Your task to perform on an android device: Show me recent news Image 0: 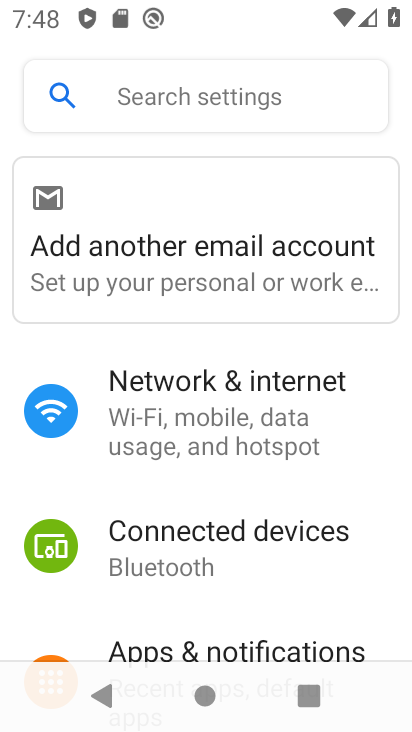
Step 0: drag from (252, 557) to (265, 264)
Your task to perform on an android device: Show me recent news Image 1: 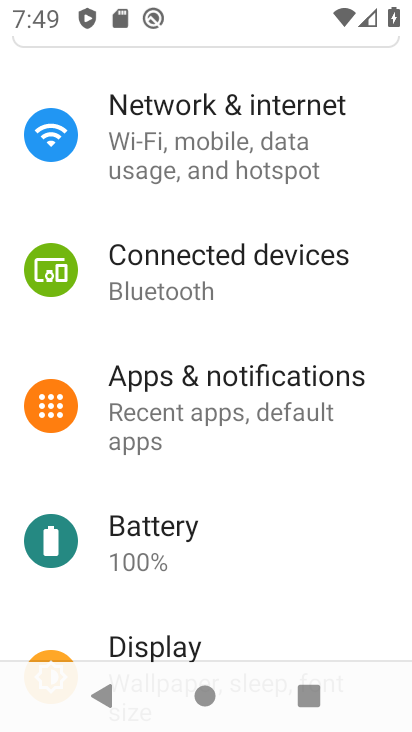
Step 1: press home button
Your task to perform on an android device: Show me recent news Image 2: 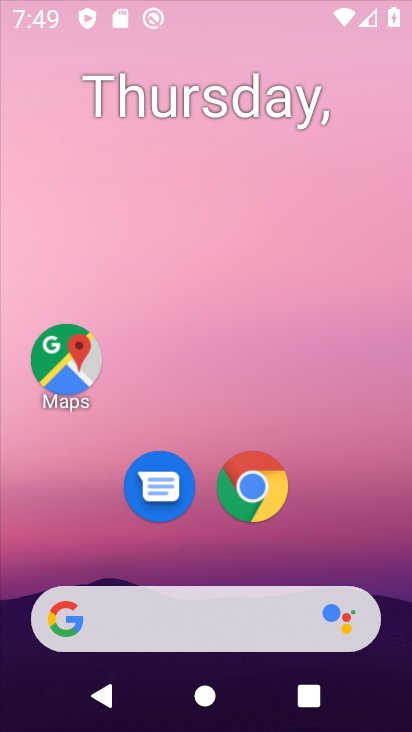
Step 2: drag from (225, 664) to (290, 158)
Your task to perform on an android device: Show me recent news Image 3: 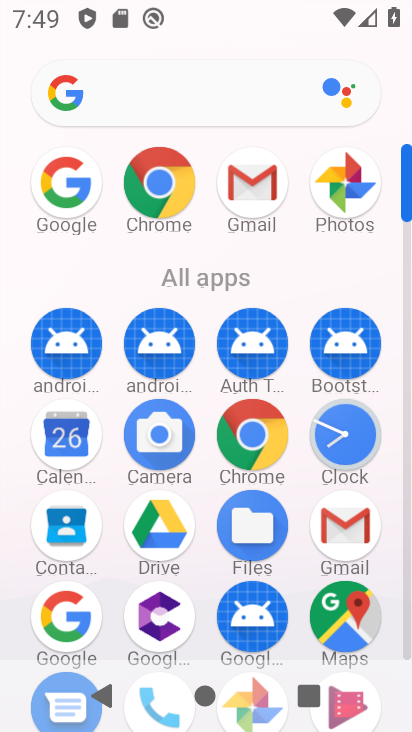
Step 3: drag from (240, 503) to (291, 236)
Your task to perform on an android device: Show me recent news Image 4: 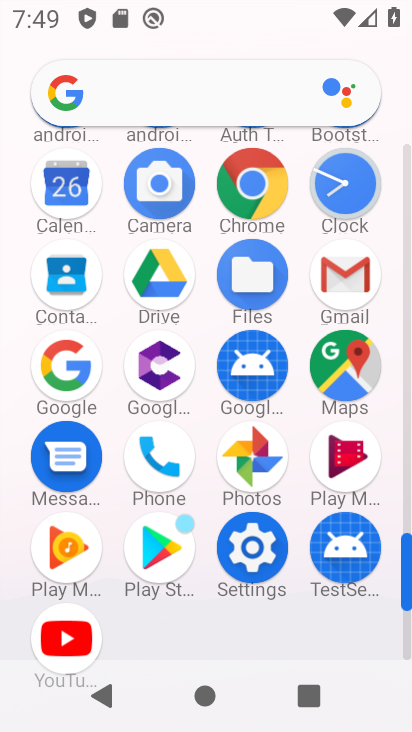
Step 4: click (59, 385)
Your task to perform on an android device: Show me recent news Image 5: 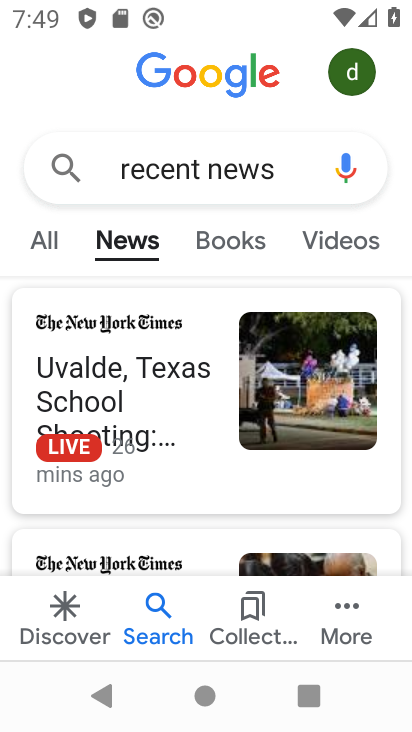
Step 5: task complete